Your task to perform on an android device: change your default location settings in chrome Image 0: 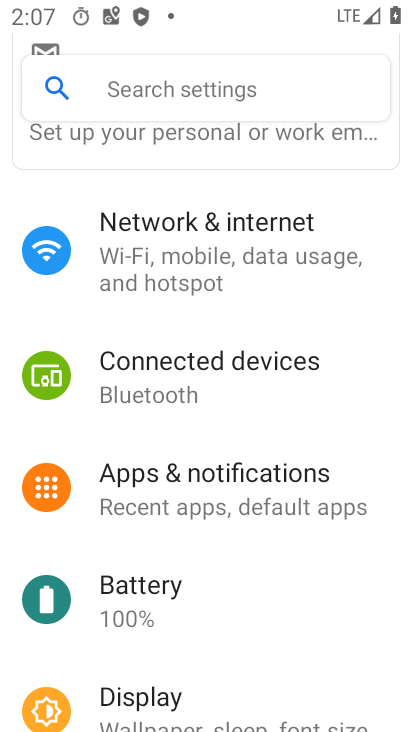
Step 0: press back button
Your task to perform on an android device: change your default location settings in chrome Image 1: 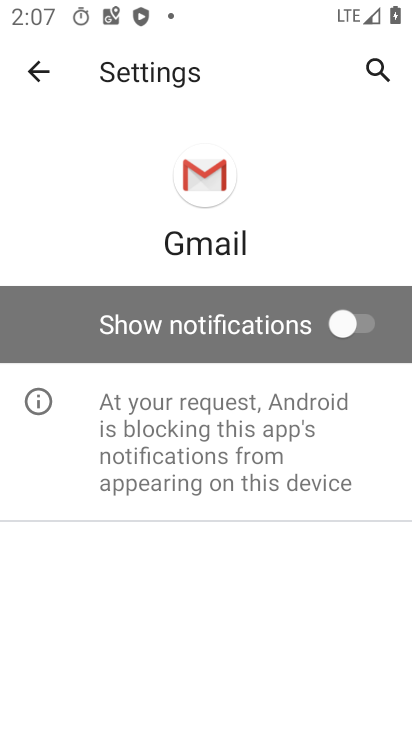
Step 1: press back button
Your task to perform on an android device: change your default location settings in chrome Image 2: 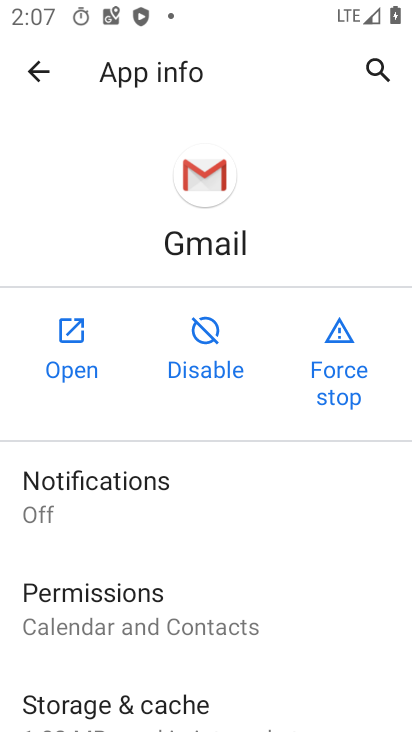
Step 2: press back button
Your task to perform on an android device: change your default location settings in chrome Image 3: 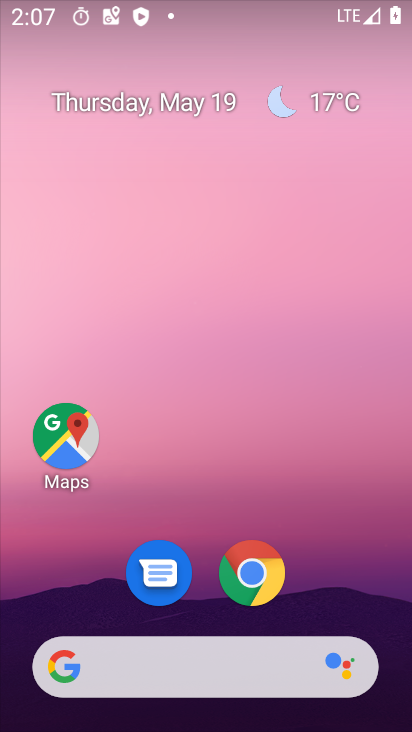
Step 3: click (254, 568)
Your task to perform on an android device: change your default location settings in chrome Image 4: 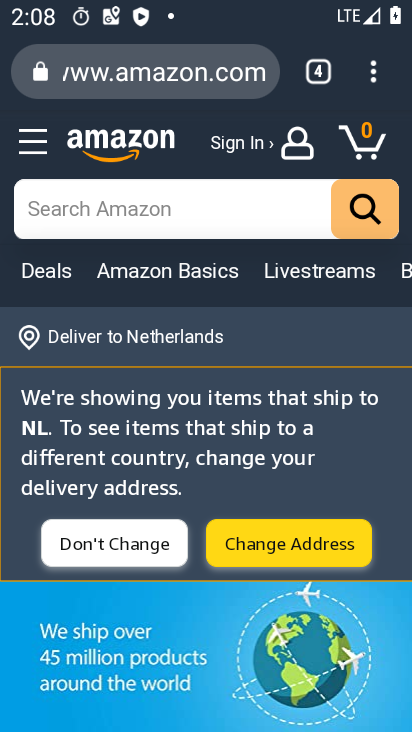
Step 4: drag from (372, 69) to (160, 568)
Your task to perform on an android device: change your default location settings in chrome Image 5: 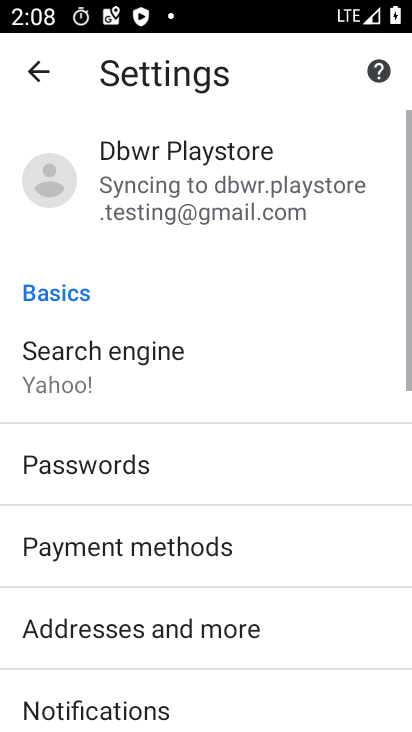
Step 5: drag from (184, 583) to (314, 77)
Your task to perform on an android device: change your default location settings in chrome Image 6: 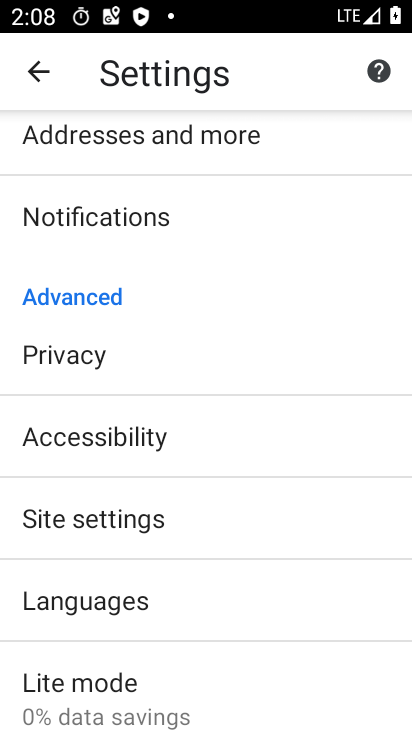
Step 6: drag from (139, 633) to (225, 162)
Your task to perform on an android device: change your default location settings in chrome Image 7: 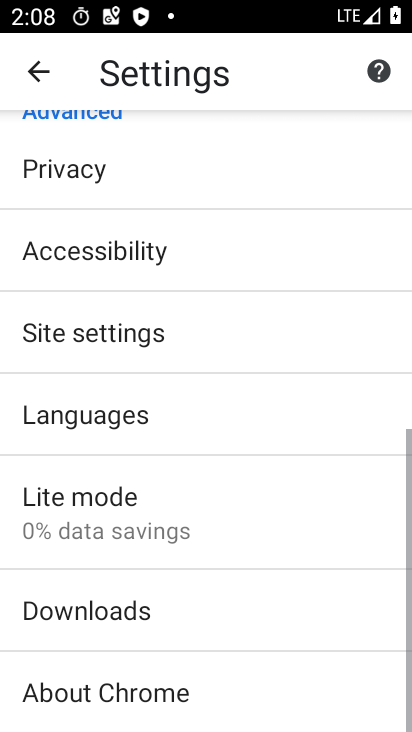
Step 7: drag from (252, 255) to (211, 557)
Your task to perform on an android device: change your default location settings in chrome Image 8: 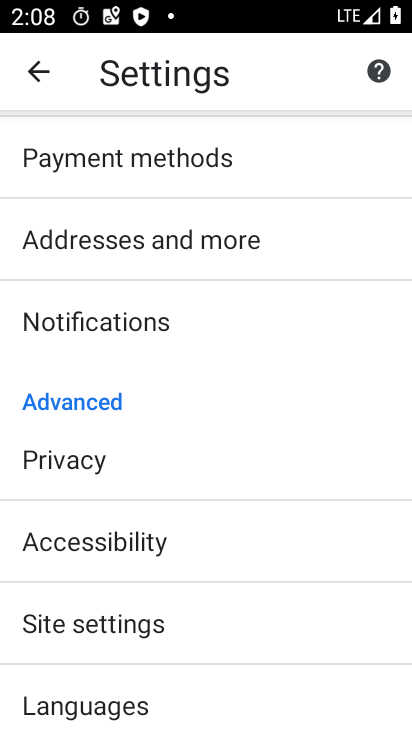
Step 8: click (132, 639)
Your task to perform on an android device: change your default location settings in chrome Image 9: 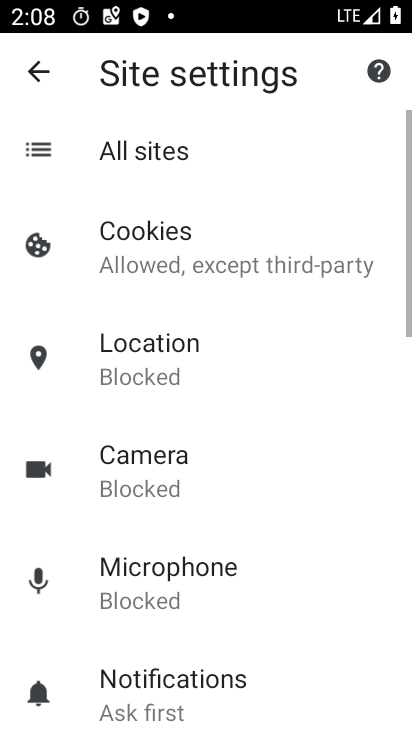
Step 9: drag from (150, 656) to (267, 122)
Your task to perform on an android device: change your default location settings in chrome Image 10: 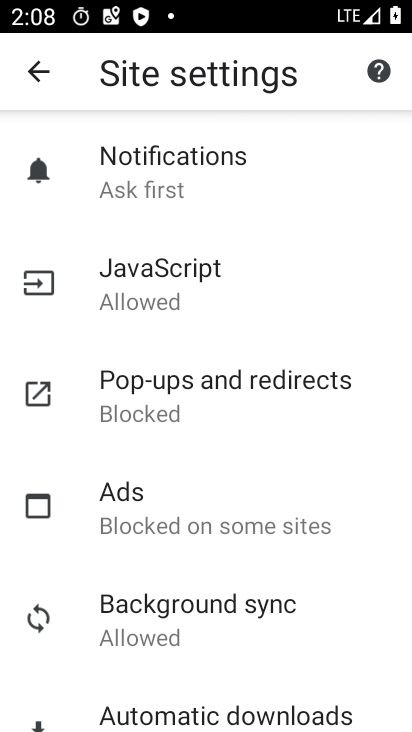
Step 10: drag from (224, 649) to (326, 132)
Your task to perform on an android device: change your default location settings in chrome Image 11: 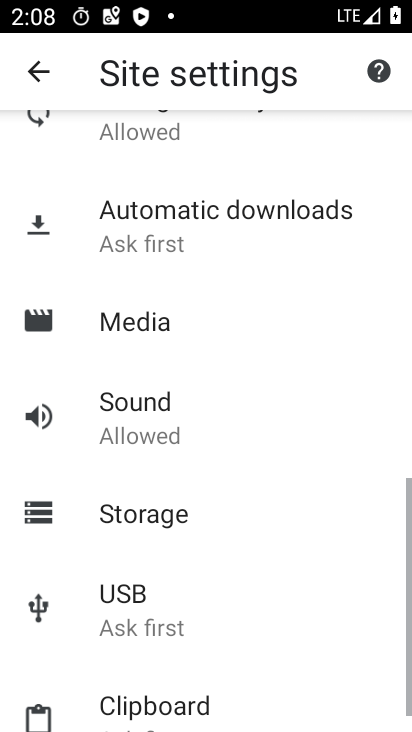
Step 11: drag from (286, 208) to (145, 708)
Your task to perform on an android device: change your default location settings in chrome Image 12: 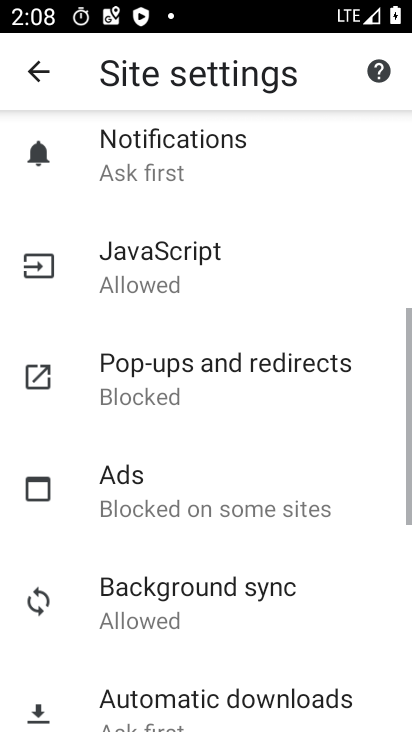
Step 12: drag from (178, 202) to (175, 730)
Your task to perform on an android device: change your default location settings in chrome Image 13: 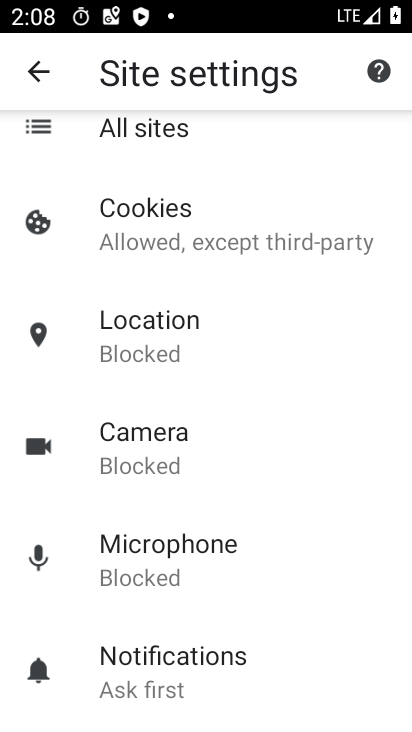
Step 13: click (139, 339)
Your task to perform on an android device: change your default location settings in chrome Image 14: 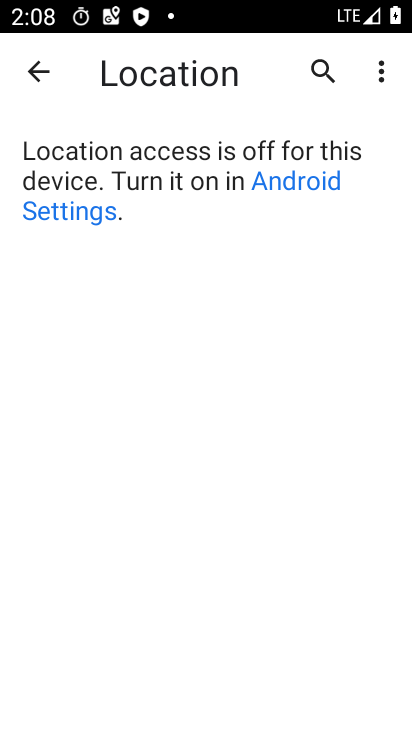
Step 14: click (274, 189)
Your task to perform on an android device: change your default location settings in chrome Image 15: 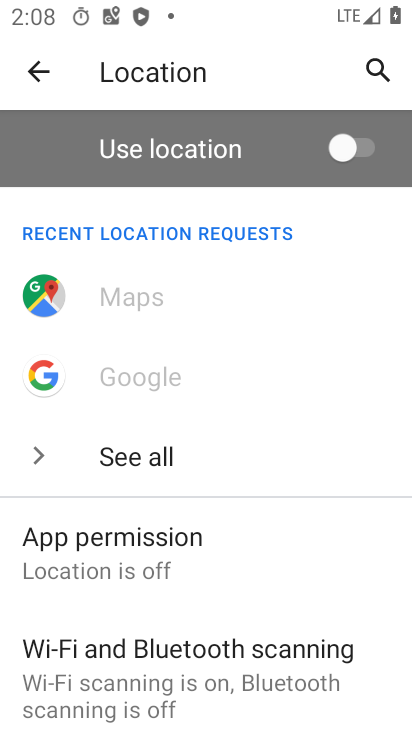
Step 15: click (354, 148)
Your task to perform on an android device: change your default location settings in chrome Image 16: 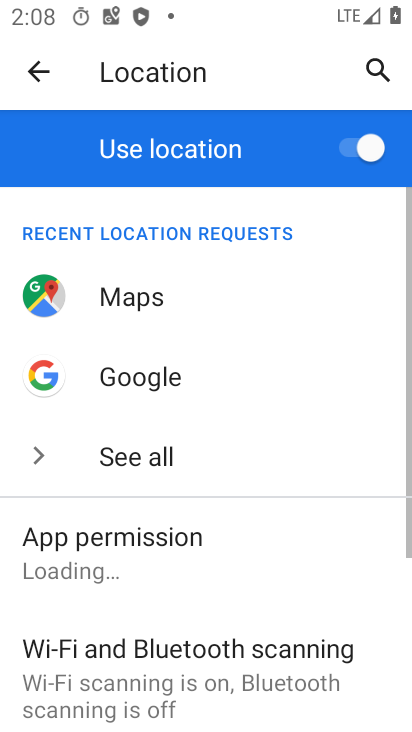
Step 16: click (44, 93)
Your task to perform on an android device: change your default location settings in chrome Image 17: 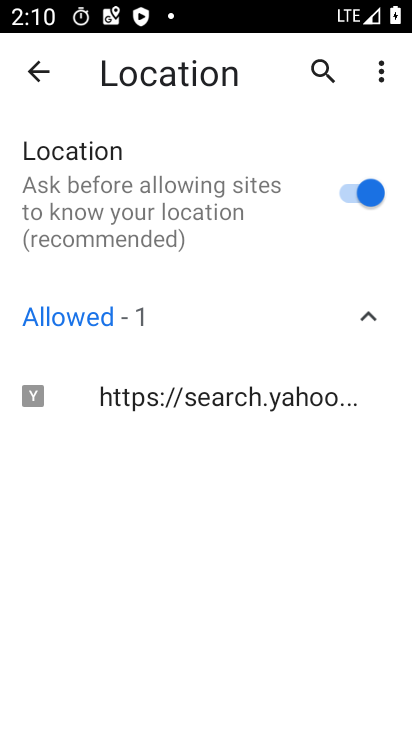
Step 17: task complete